Your task to perform on an android device: turn on bluetooth scan Image 0: 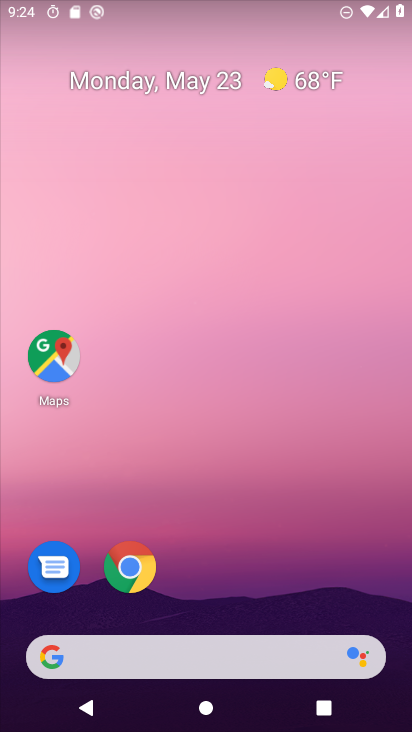
Step 0: click (220, 228)
Your task to perform on an android device: turn on bluetooth scan Image 1: 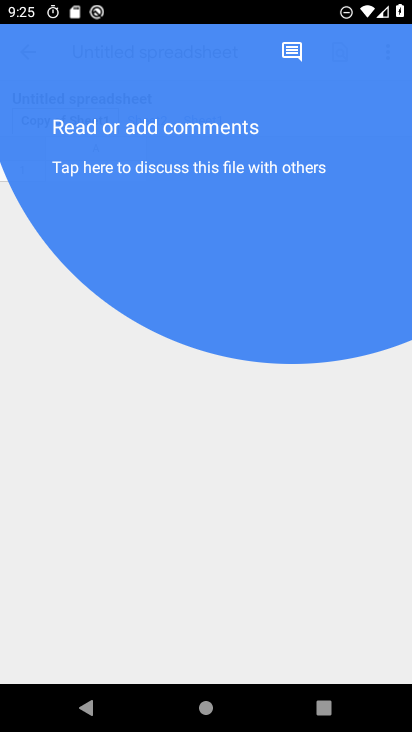
Step 1: click (256, 571)
Your task to perform on an android device: turn on bluetooth scan Image 2: 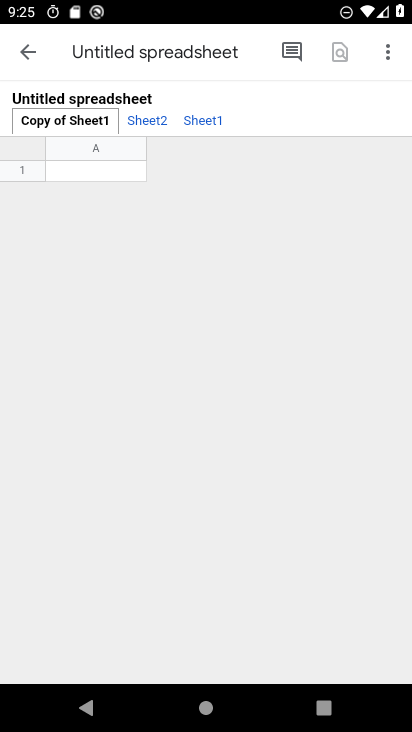
Step 2: drag from (266, 581) to (303, 274)
Your task to perform on an android device: turn on bluetooth scan Image 3: 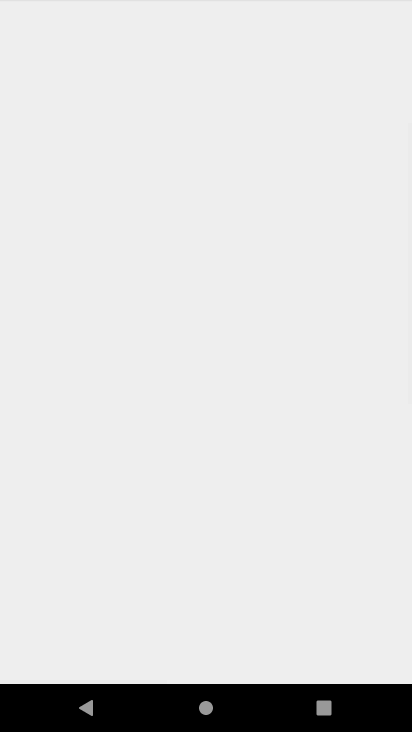
Step 3: press home button
Your task to perform on an android device: turn on bluetooth scan Image 4: 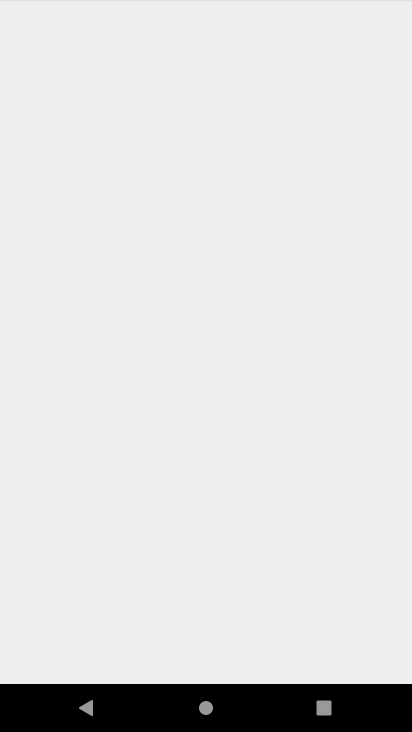
Step 4: press home button
Your task to perform on an android device: turn on bluetooth scan Image 5: 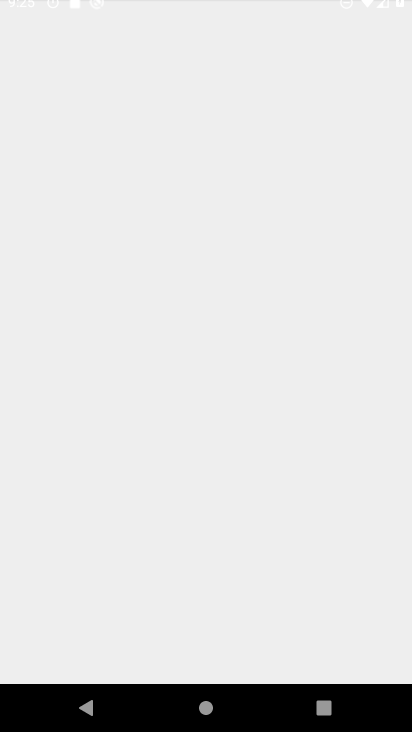
Step 5: drag from (234, 596) to (277, 3)
Your task to perform on an android device: turn on bluetooth scan Image 6: 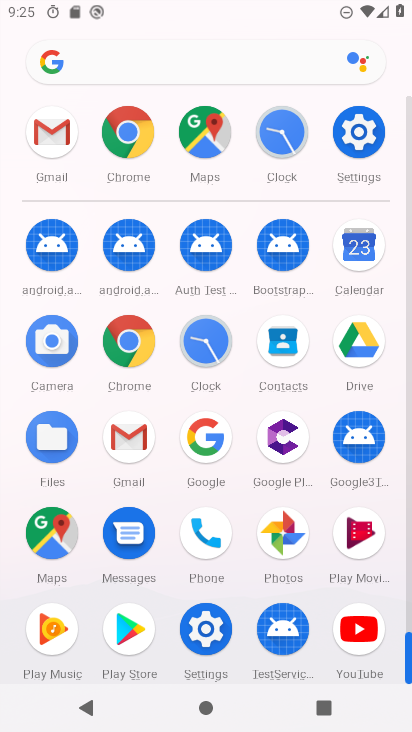
Step 6: click (350, 137)
Your task to perform on an android device: turn on bluetooth scan Image 7: 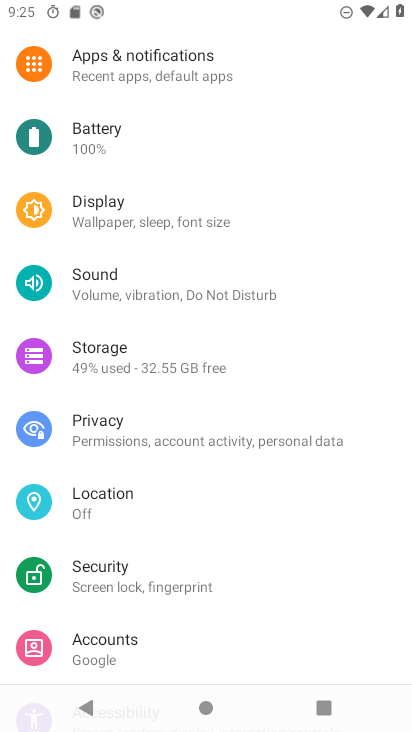
Step 7: drag from (162, 597) to (284, 138)
Your task to perform on an android device: turn on bluetooth scan Image 8: 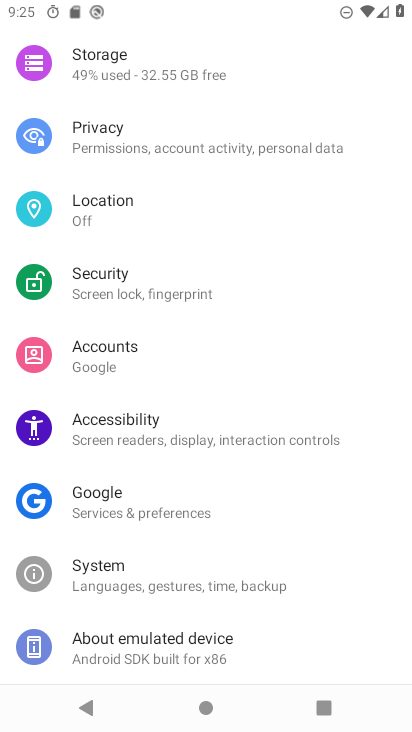
Step 8: drag from (211, 200) to (292, 727)
Your task to perform on an android device: turn on bluetooth scan Image 9: 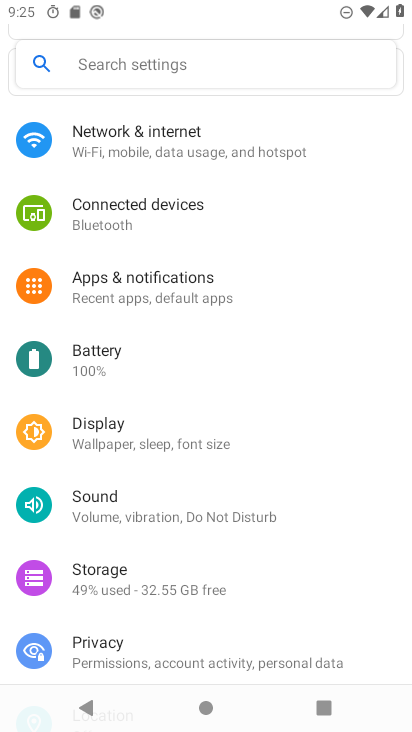
Step 9: drag from (202, 640) to (280, 6)
Your task to perform on an android device: turn on bluetooth scan Image 10: 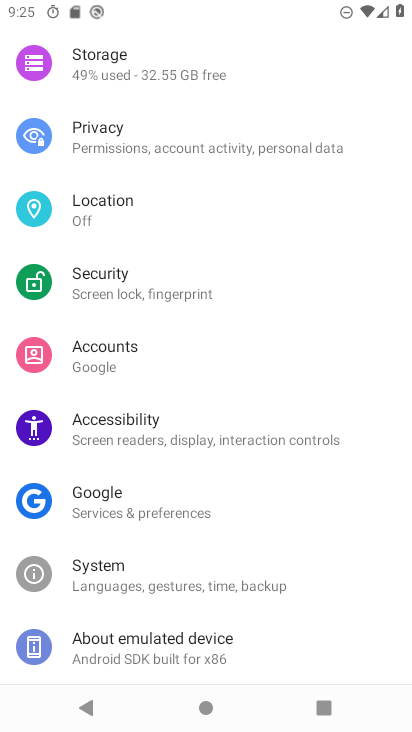
Step 10: click (235, 605)
Your task to perform on an android device: turn on bluetooth scan Image 11: 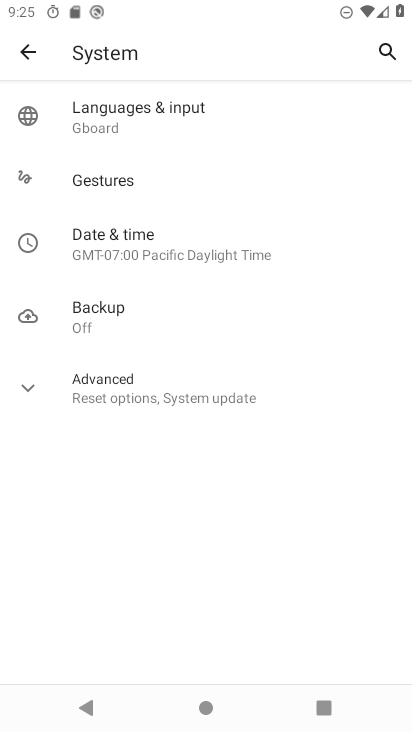
Step 11: drag from (247, 611) to (328, 260)
Your task to perform on an android device: turn on bluetooth scan Image 12: 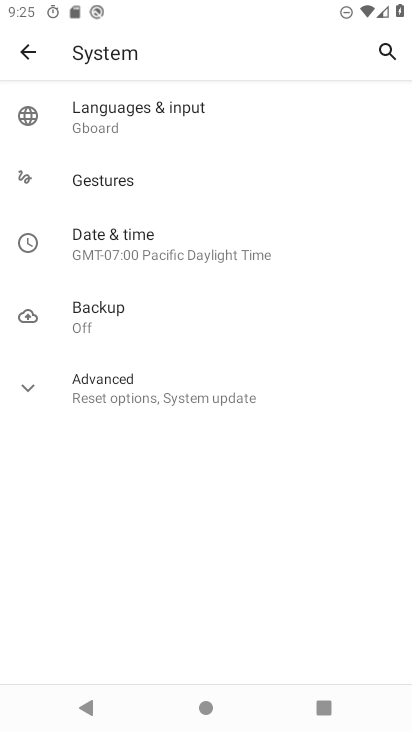
Step 12: click (31, 44)
Your task to perform on an android device: turn on bluetooth scan Image 13: 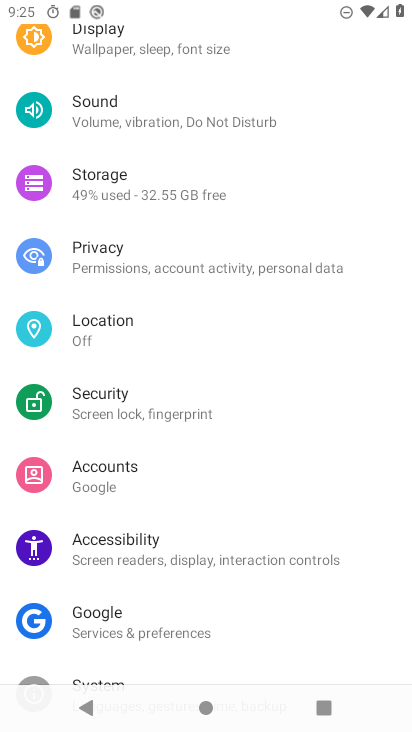
Step 13: click (201, 325)
Your task to perform on an android device: turn on bluetooth scan Image 14: 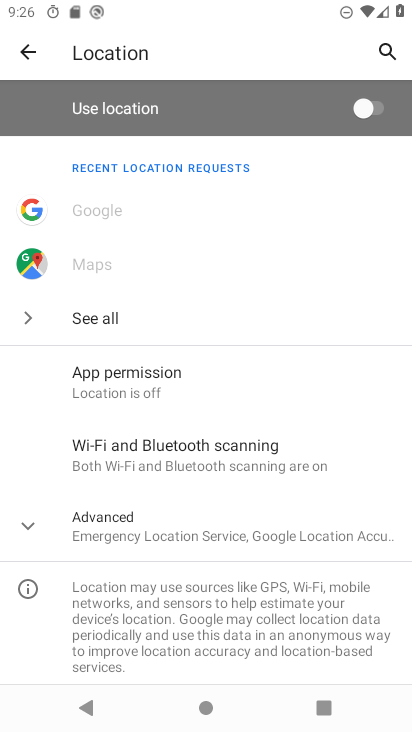
Step 14: click (231, 460)
Your task to perform on an android device: turn on bluetooth scan Image 15: 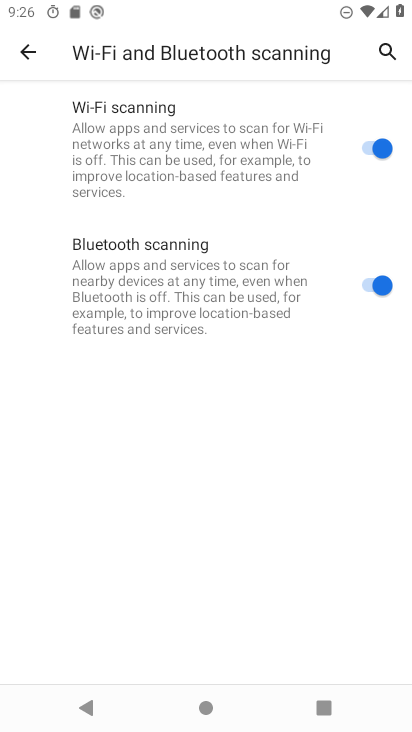
Step 15: task complete